Your task to perform on an android device: remove spam from my inbox in the gmail app Image 0: 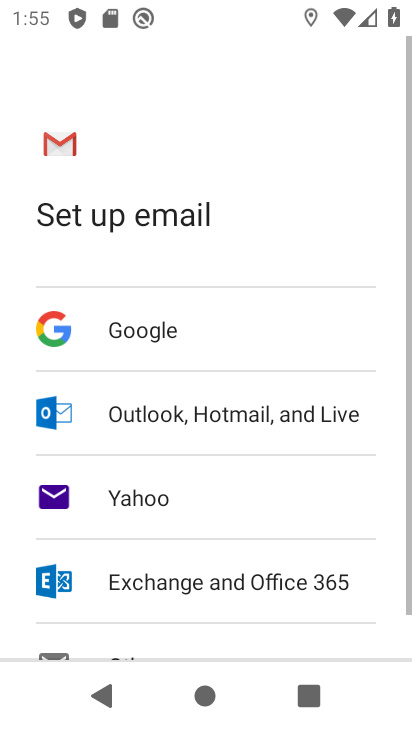
Step 0: press home button
Your task to perform on an android device: remove spam from my inbox in the gmail app Image 1: 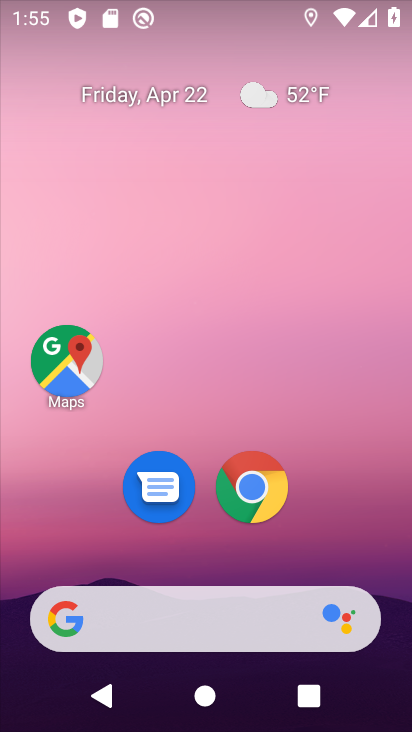
Step 1: drag from (218, 503) to (235, 3)
Your task to perform on an android device: remove spam from my inbox in the gmail app Image 2: 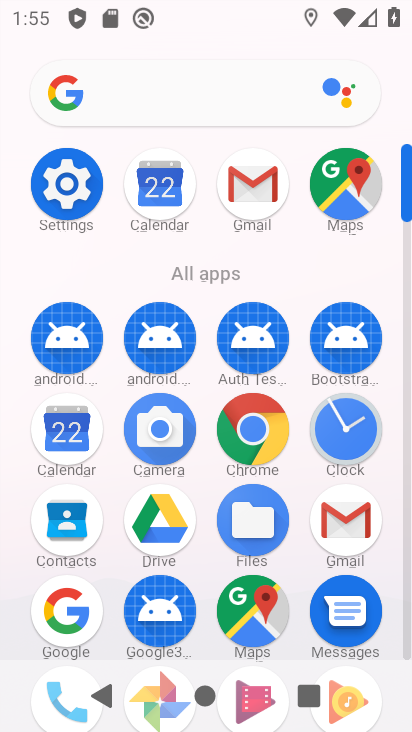
Step 2: click (353, 513)
Your task to perform on an android device: remove spam from my inbox in the gmail app Image 3: 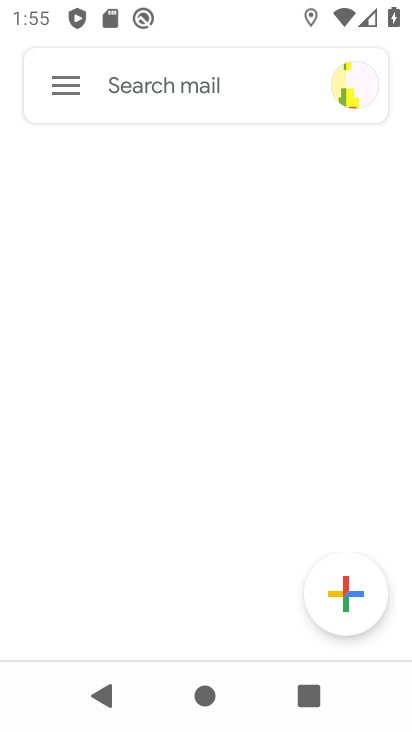
Step 3: click (55, 84)
Your task to perform on an android device: remove spam from my inbox in the gmail app Image 4: 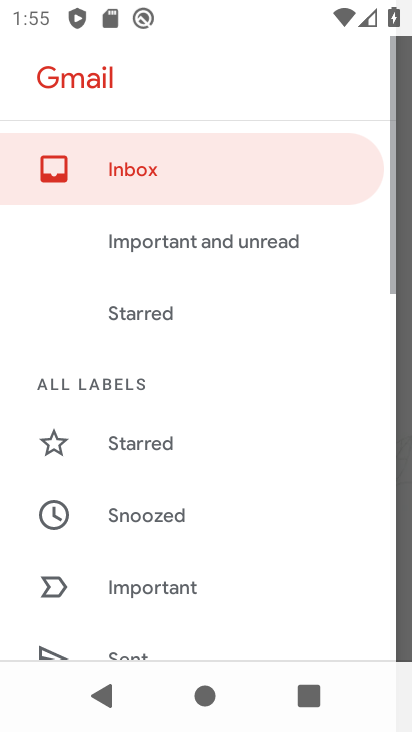
Step 4: drag from (142, 487) to (215, 8)
Your task to perform on an android device: remove spam from my inbox in the gmail app Image 5: 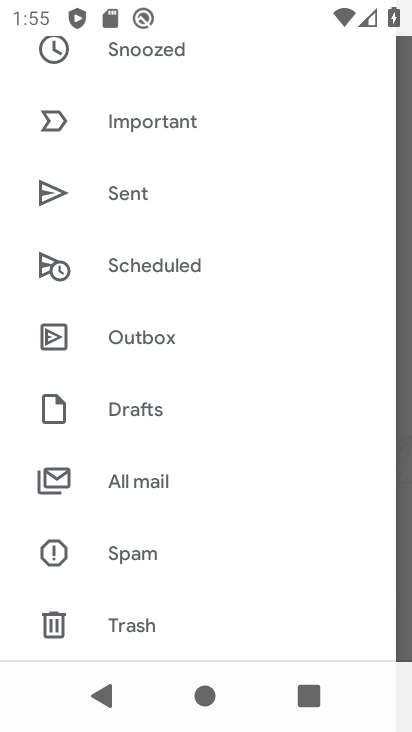
Step 5: drag from (149, 527) to (161, 405)
Your task to perform on an android device: remove spam from my inbox in the gmail app Image 6: 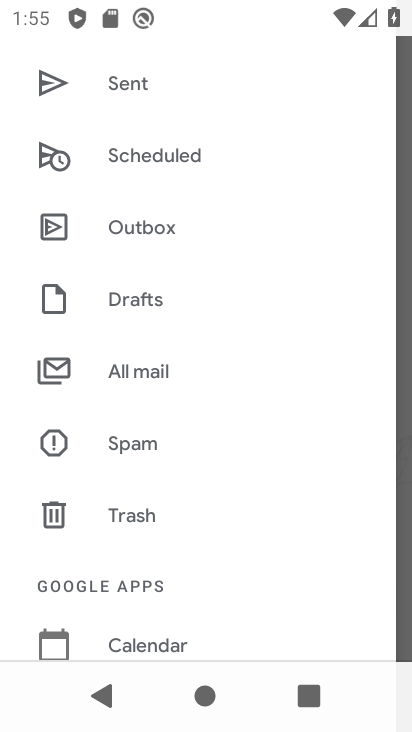
Step 6: click (138, 453)
Your task to perform on an android device: remove spam from my inbox in the gmail app Image 7: 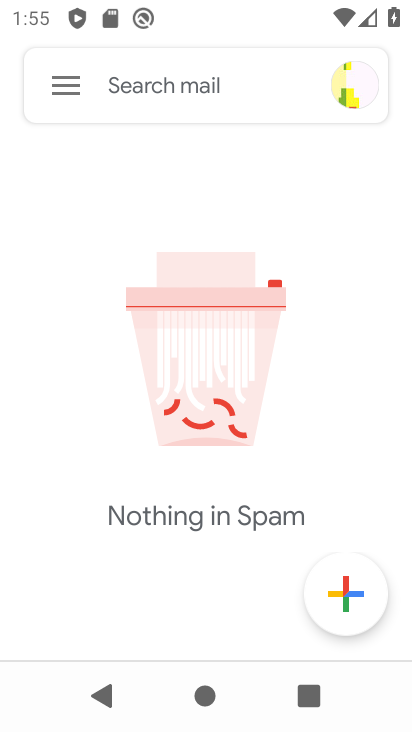
Step 7: task complete